Your task to perform on an android device: Open settings on Google Maps Image 0: 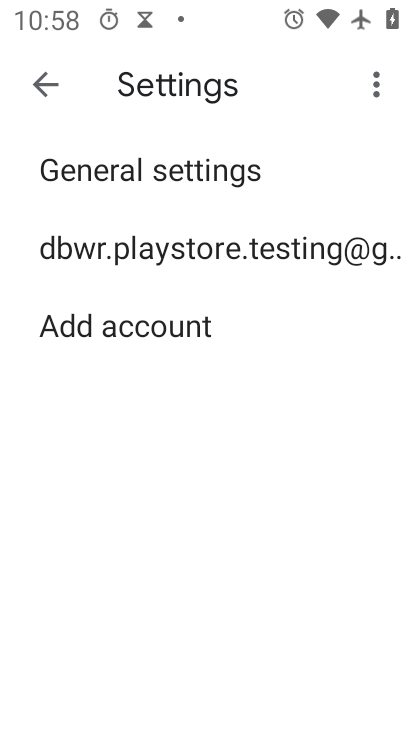
Step 0: press home button
Your task to perform on an android device: Open settings on Google Maps Image 1: 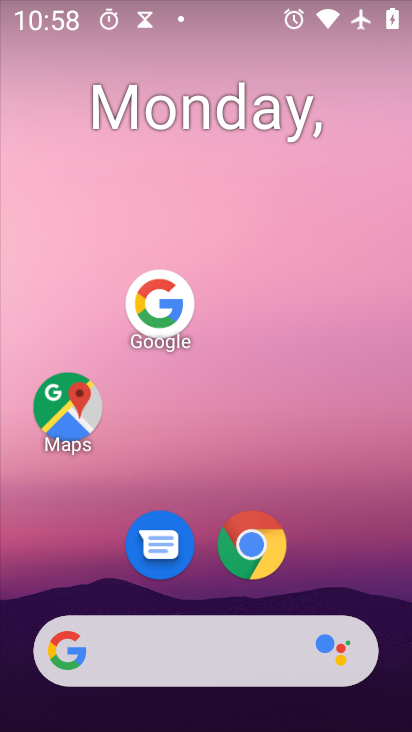
Step 1: click (59, 421)
Your task to perform on an android device: Open settings on Google Maps Image 2: 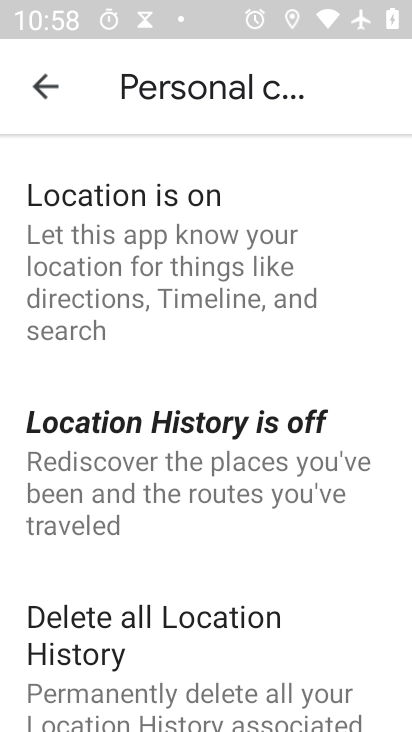
Step 2: click (49, 96)
Your task to perform on an android device: Open settings on Google Maps Image 3: 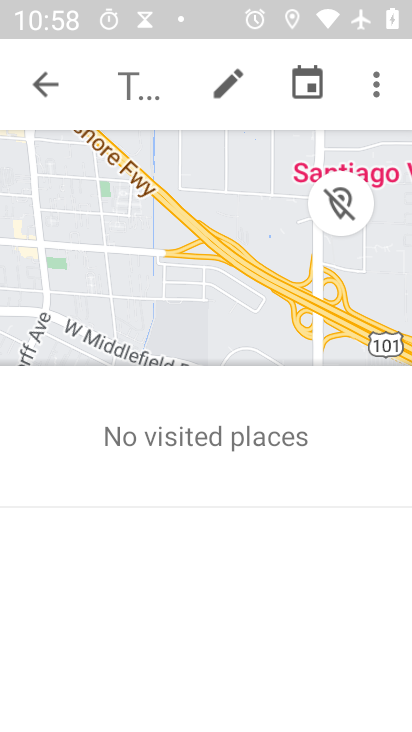
Step 3: click (57, 86)
Your task to perform on an android device: Open settings on Google Maps Image 4: 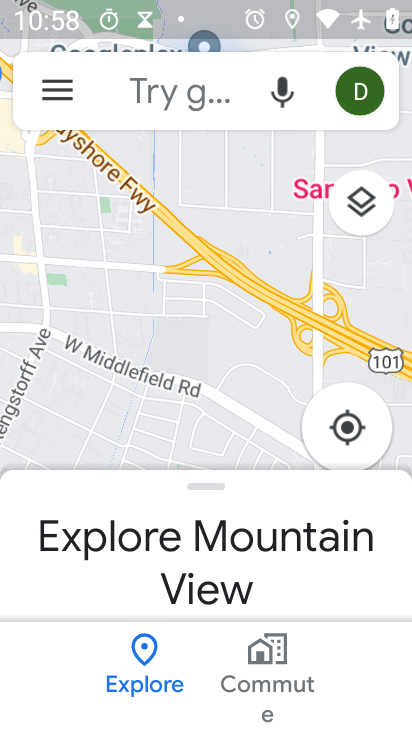
Step 4: click (54, 87)
Your task to perform on an android device: Open settings on Google Maps Image 5: 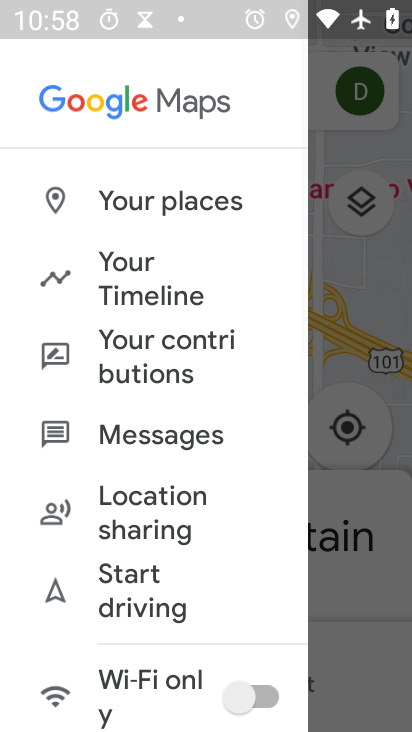
Step 5: drag from (179, 635) to (255, 6)
Your task to perform on an android device: Open settings on Google Maps Image 6: 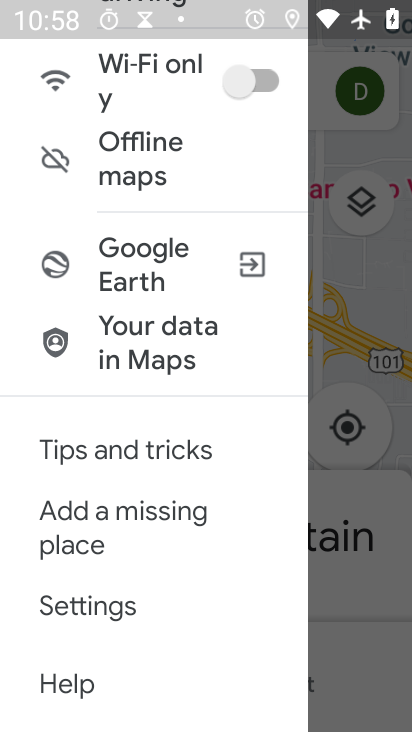
Step 6: click (128, 610)
Your task to perform on an android device: Open settings on Google Maps Image 7: 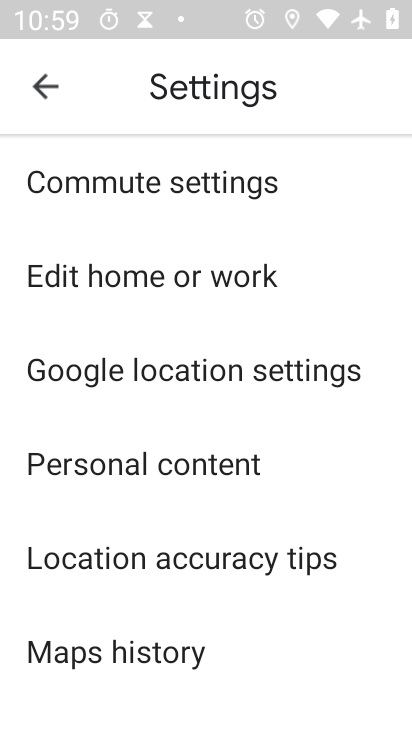
Step 7: task complete